Your task to perform on an android device: set an alarm Image 0: 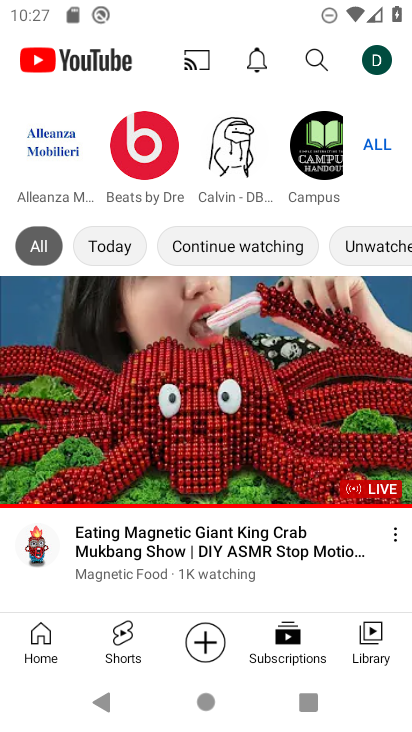
Step 0: press home button
Your task to perform on an android device: set an alarm Image 1: 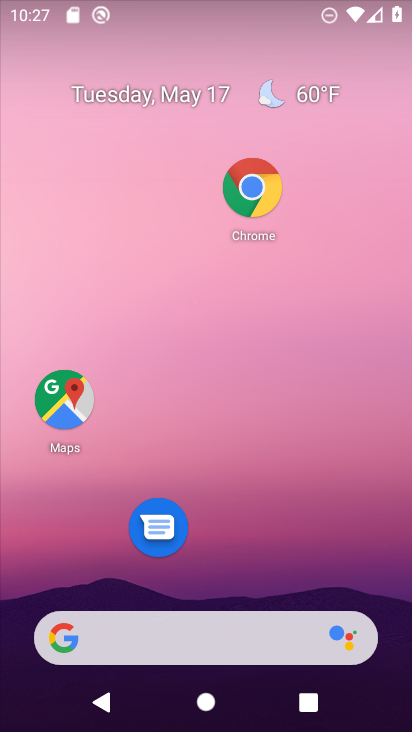
Step 1: drag from (307, 525) to (321, 271)
Your task to perform on an android device: set an alarm Image 2: 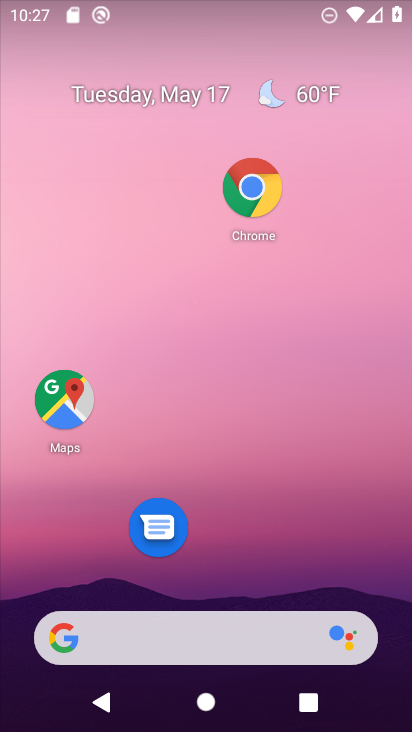
Step 2: drag from (293, 553) to (223, 37)
Your task to perform on an android device: set an alarm Image 3: 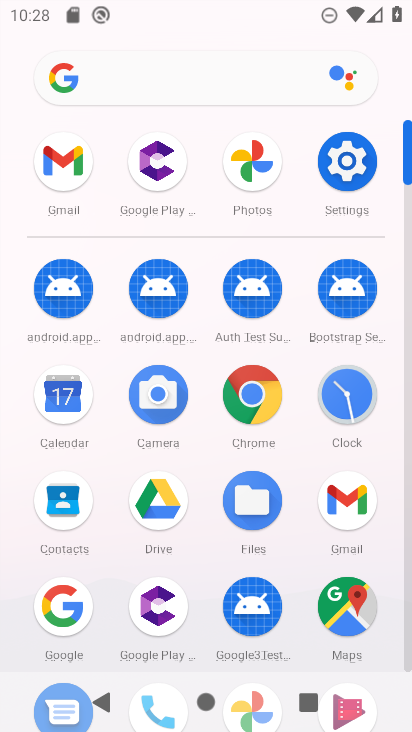
Step 3: click (347, 395)
Your task to perform on an android device: set an alarm Image 4: 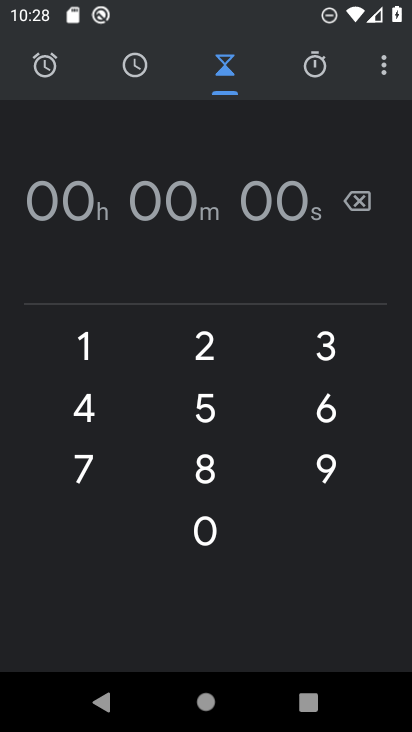
Step 4: click (42, 72)
Your task to perform on an android device: set an alarm Image 5: 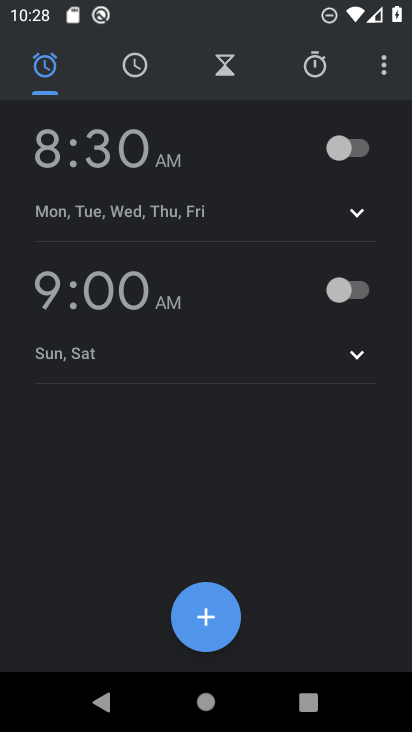
Step 5: click (362, 116)
Your task to perform on an android device: set an alarm Image 6: 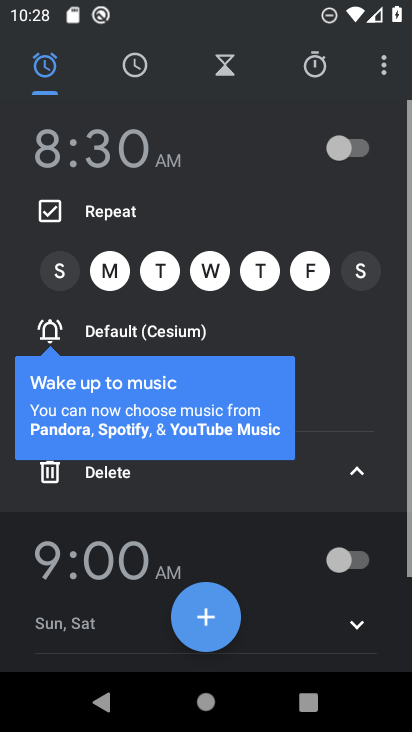
Step 6: task complete